Your task to perform on an android device: Open Google Maps Image 0: 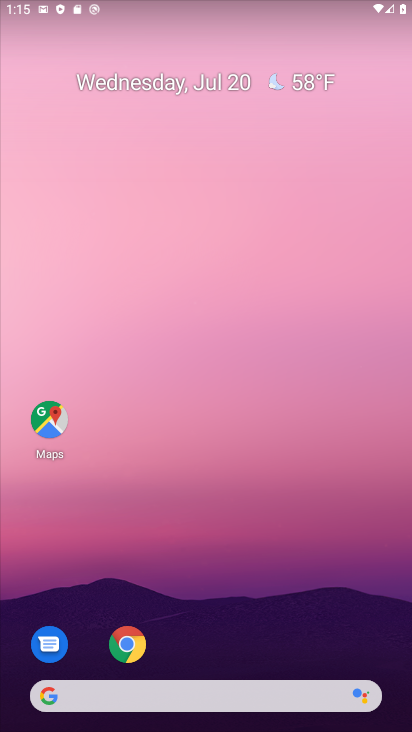
Step 0: drag from (206, 512) to (238, 105)
Your task to perform on an android device: Open Google Maps Image 1: 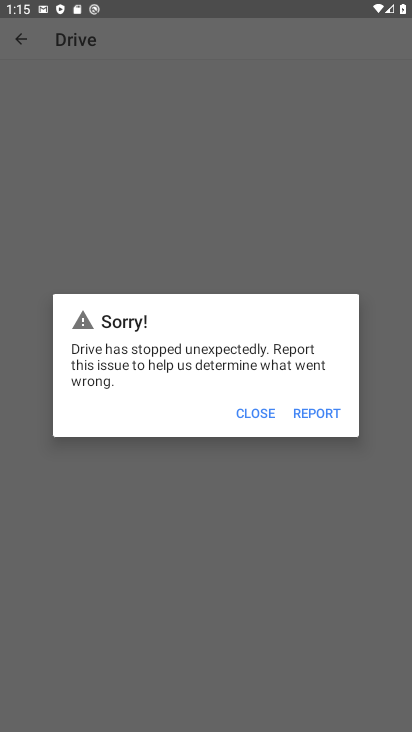
Step 1: press home button
Your task to perform on an android device: Open Google Maps Image 2: 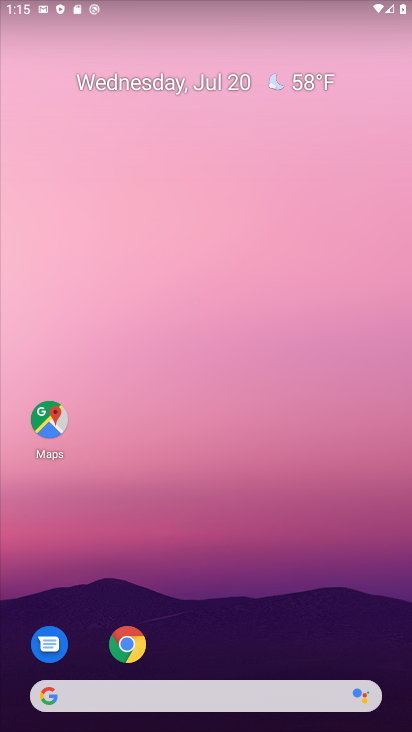
Step 2: click (45, 419)
Your task to perform on an android device: Open Google Maps Image 3: 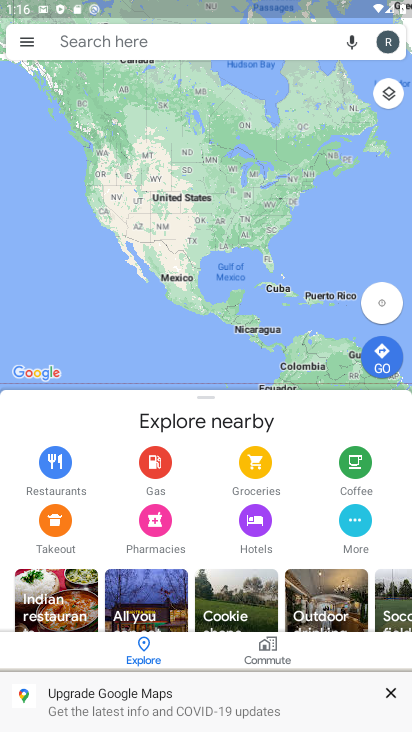
Step 3: task complete